Your task to perform on an android device: What's the weather? Image 0: 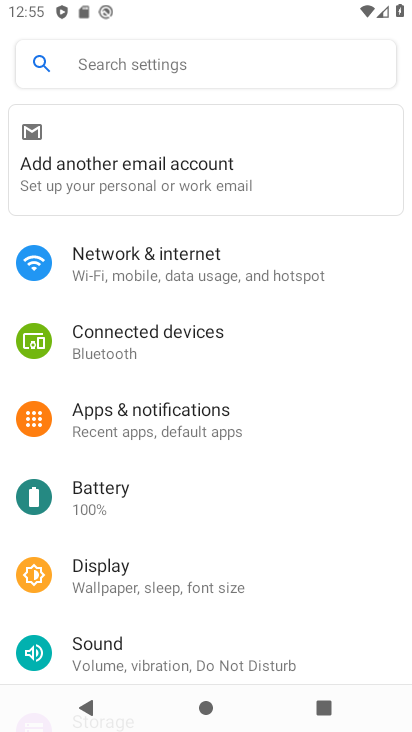
Step 0: press home button
Your task to perform on an android device: What's the weather? Image 1: 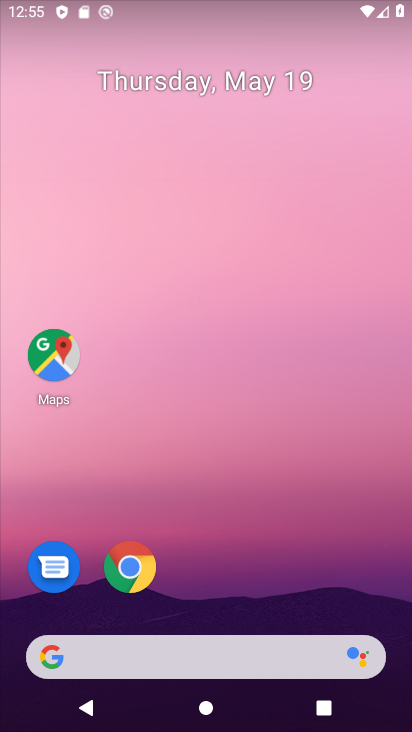
Step 1: click (61, 650)
Your task to perform on an android device: What's the weather? Image 2: 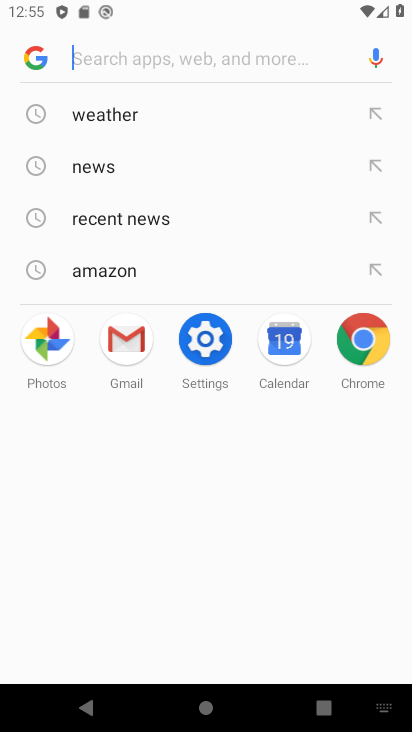
Step 2: click (106, 117)
Your task to perform on an android device: What's the weather? Image 3: 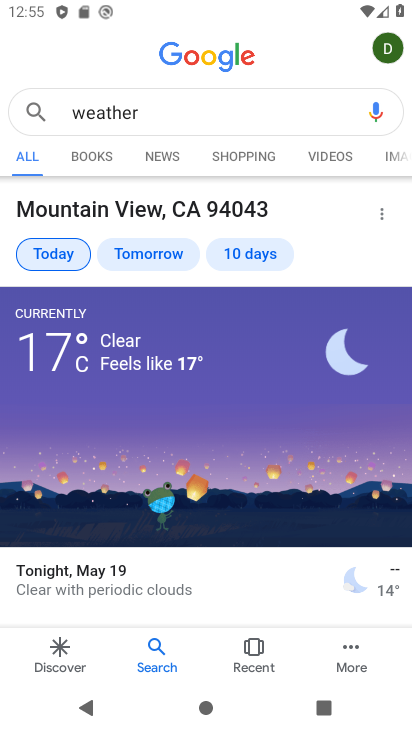
Step 3: task complete